Your task to perform on an android device: Search for the best custom wallets on Etsy. Image 0: 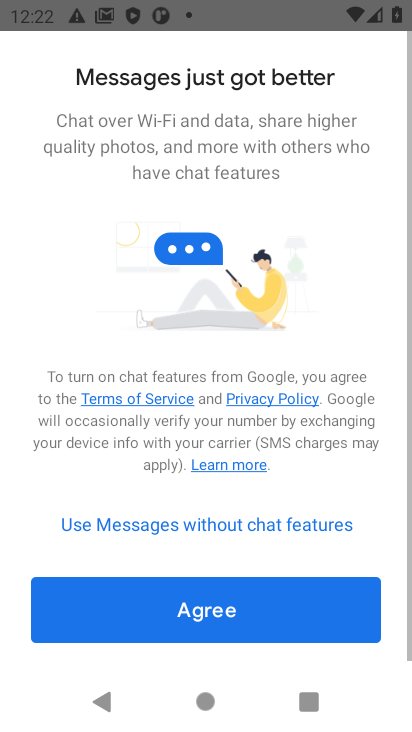
Step 0: press home button
Your task to perform on an android device: Search for the best custom wallets on Etsy. Image 1: 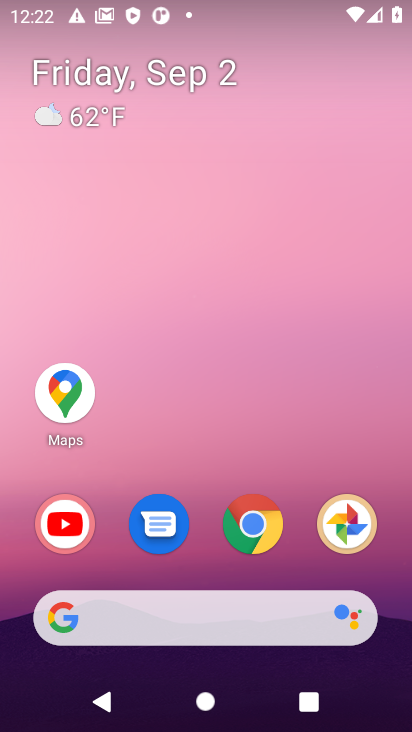
Step 1: click (278, 513)
Your task to perform on an android device: Search for the best custom wallets on Etsy. Image 2: 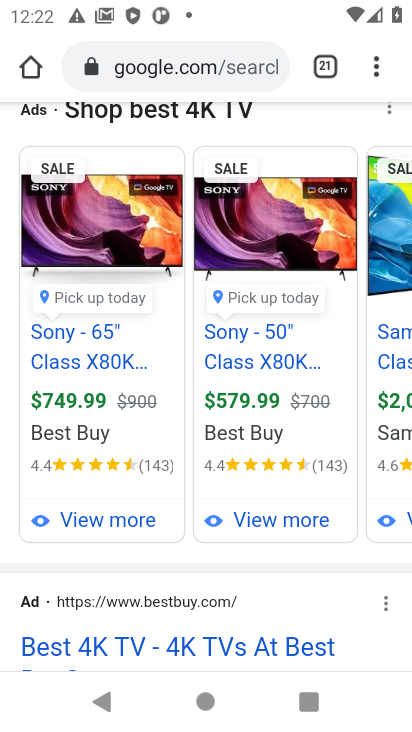
Step 2: click (322, 66)
Your task to perform on an android device: Search for the best custom wallets on Etsy. Image 3: 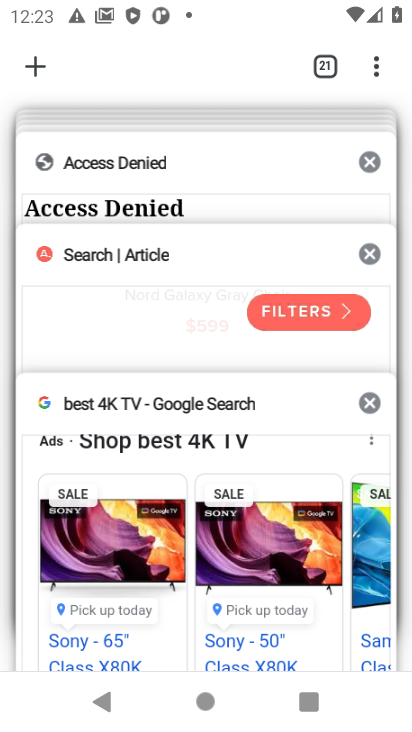
Step 3: drag from (203, 147) to (207, 503)
Your task to perform on an android device: Search for the best custom wallets on Etsy. Image 4: 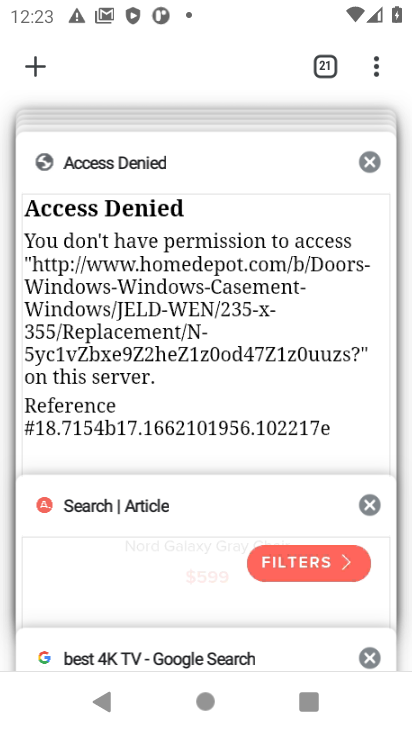
Step 4: drag from (176, 144) to (185, 524)
Your task to perform on an android device: Search for the best custom wallets on Etsy. Image 5: 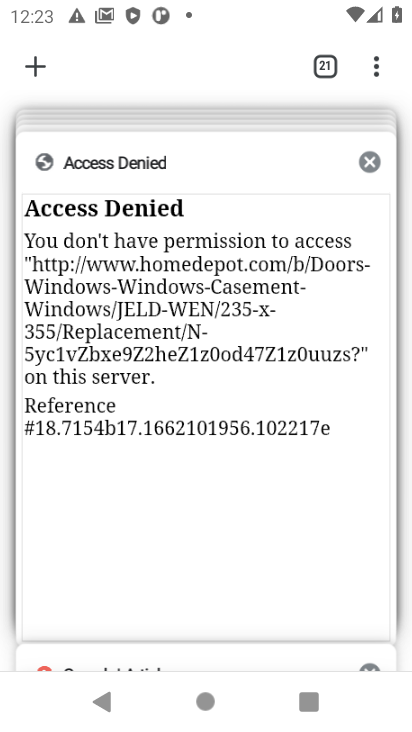
Step 5: drag from (145, 162) to (199, 584)
Your task to perform on an android device: Search for the best custom wallets on Etsy. Image 6: 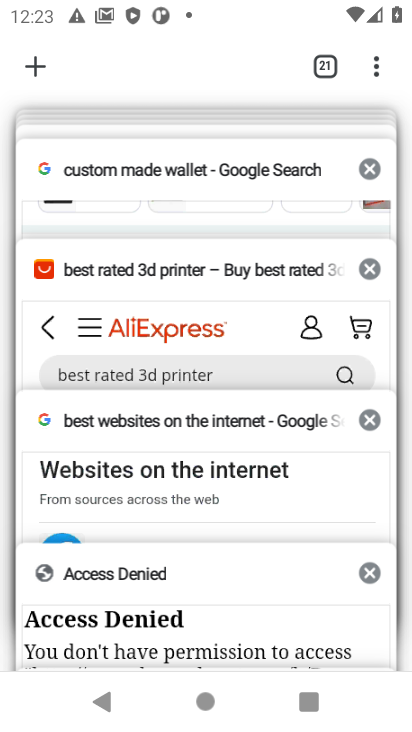
Step 6: drag from (165, 175) to (169, 580)
Your task to perform on an android device: Search for the best custom wallets on Etsy. Image 7: 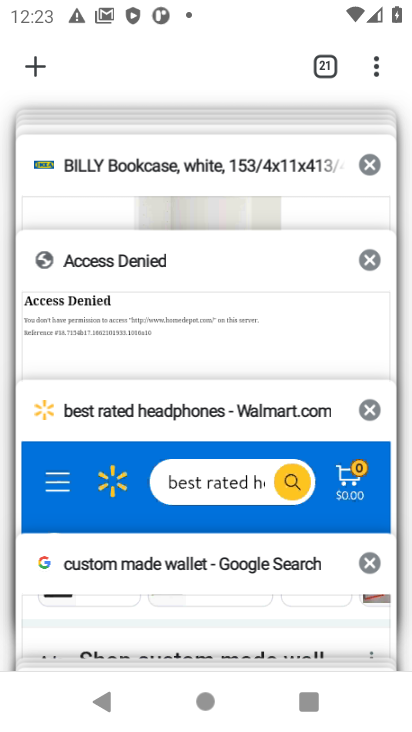
Step 7: drag from (124, 163) to (143, 597)
Your task to perform on an android device: Search for the best custom wallets on Etsy. Image 8: 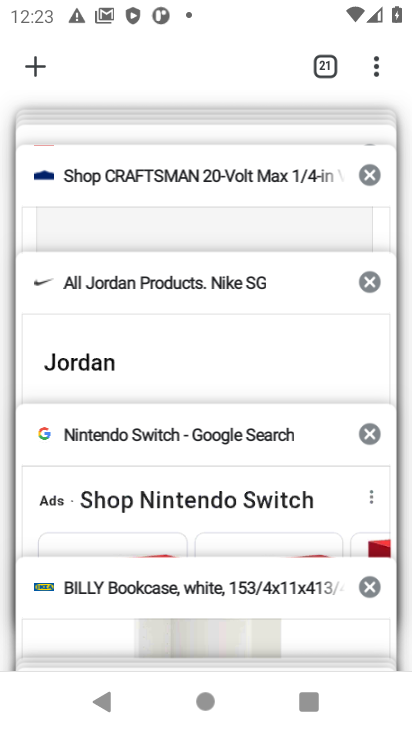
Step 8: drag from (105, 386) to (128, 665)
Your task to perform on an android device: Search for the best custom wallets on Etsy. Image 9: 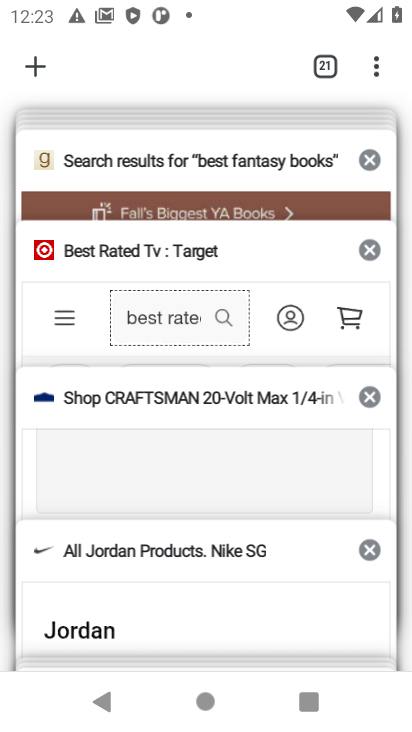
Step 9: drag from (184, 154) to (209, 601)
Your task to perform on an android device: Search for the best custom wallets on Etsy. Image 10: 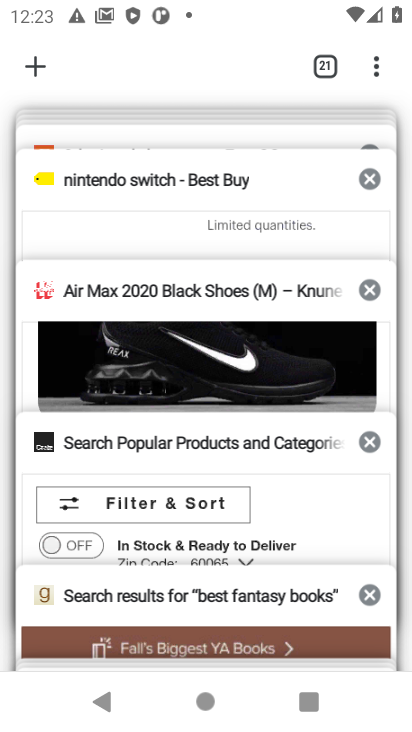
Step 10: drag from (225, 320) to (251, 559)
Your task to perform on an android device: Search for the best custom wallets on Etsy. Image 11: 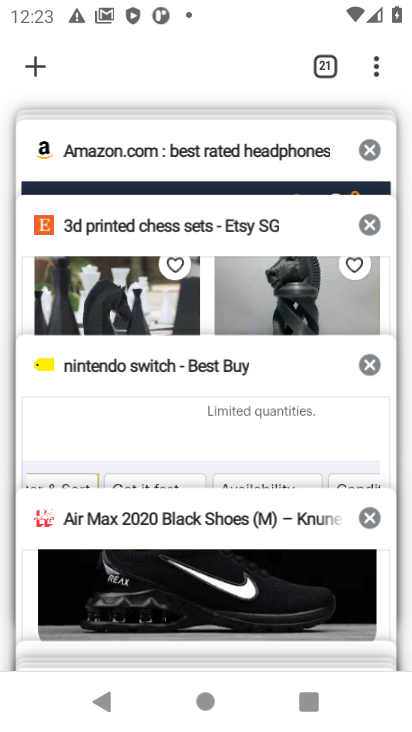
Step 11: click (211, 222)
Your task to perform on an android device: Search for the best custom wallets on Etsy. Image 12: 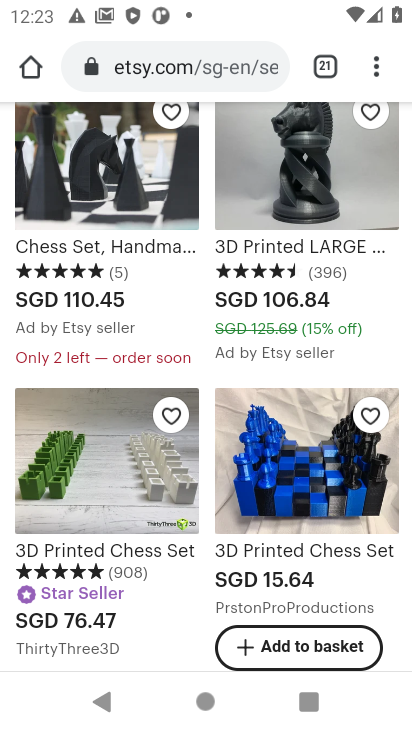
Step 12: drag from (245, 153) to (275, 535)
Your task to perform on an android device: Search for the best custom wallets on Etsy. Image 13: 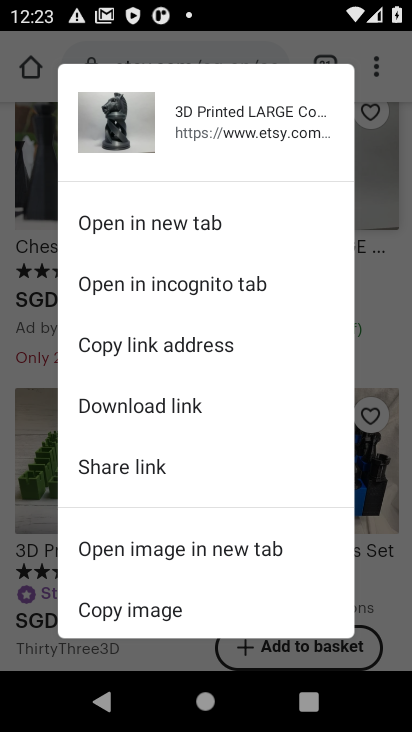
Step 13: click (391, 284)
Your task to perform on an android device: Search for the best custom wallets on Etsy. Image 14: 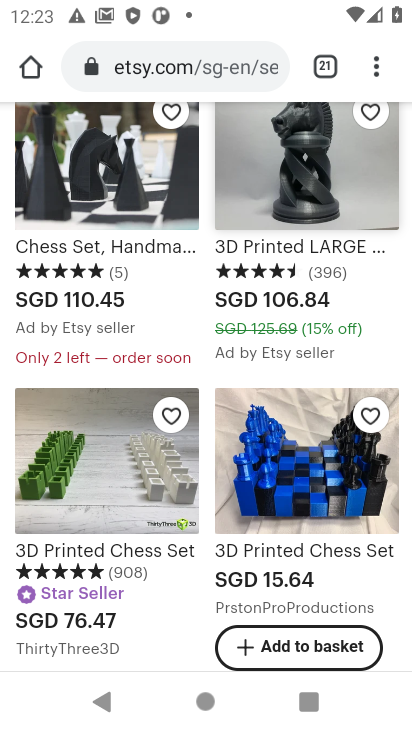
Step 14: drag from (391, 284) to (380, 583)
Your task to perform on an android device: Search for the best custom wallets on Etsy. Image 15: 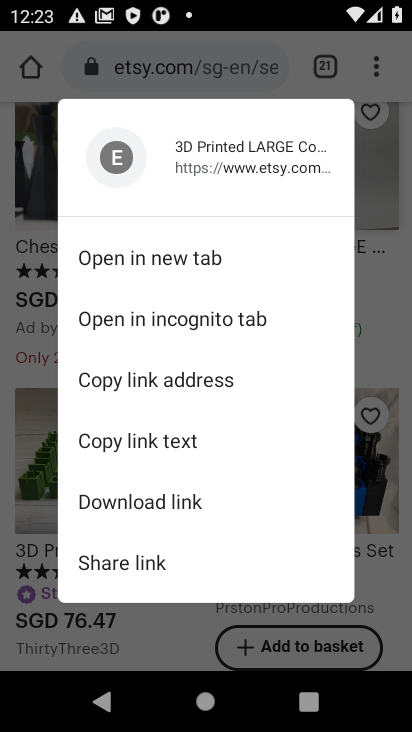
Step 15: click (384, 218)
Your task to perform on an android device: Search for the best custom wallets on Etsy. Image 16: 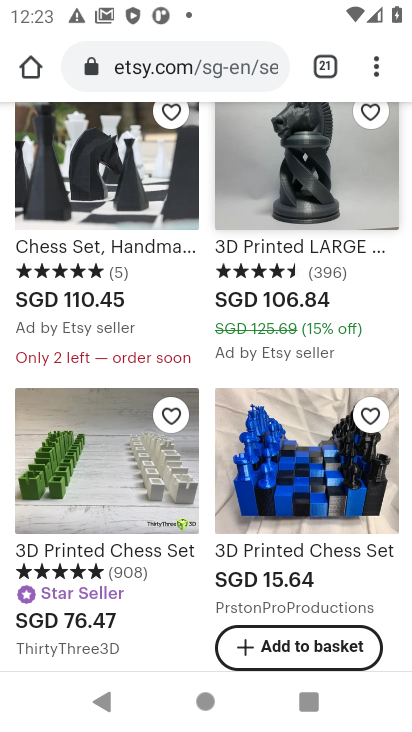
Step 16: drag from (203, 237) to (194, 523)
Your task to perform on an android device: Search for the best custom wallets on Etsy. Image 17: 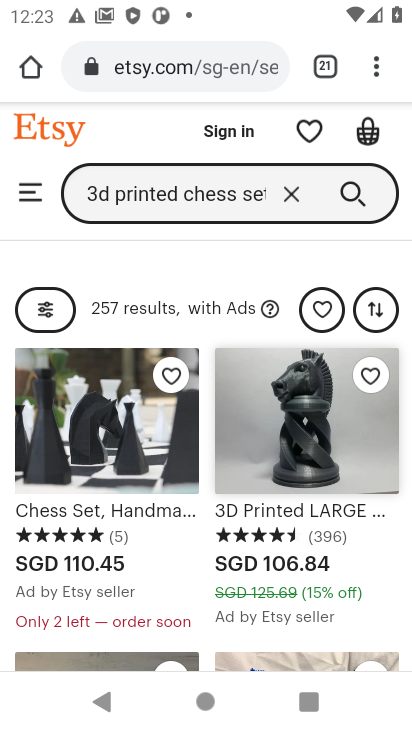
Step 17: click (296, 189)
Your task to perform on an android device: Search for the best custom wallets on Etsy. Image 18: 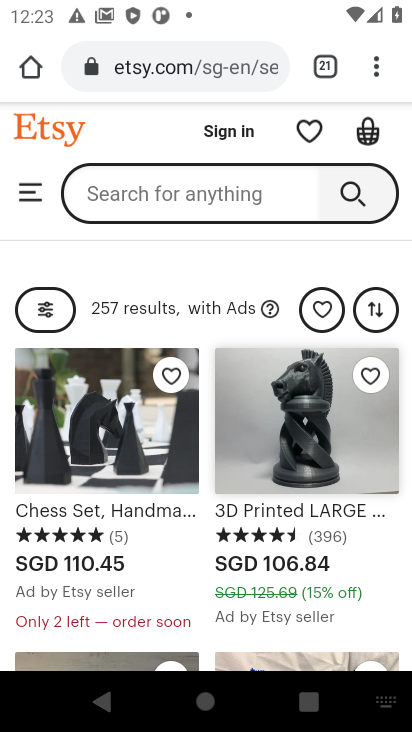
Step 18: type "best custom wallets"
Your task to perform on an android device: Search for the best custom wallets on Etsy. Image 19: 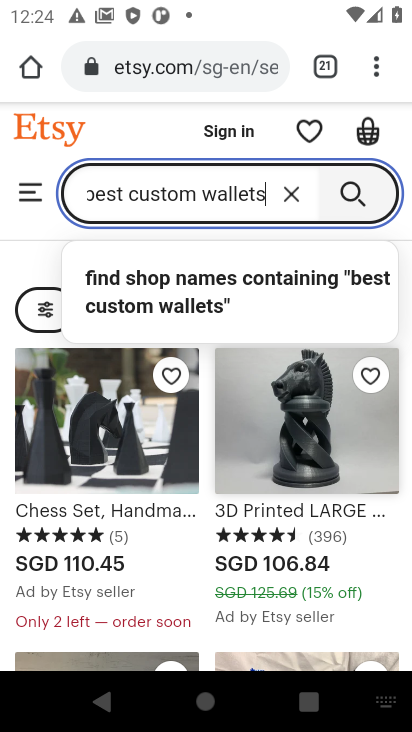
Step 19: click (352, 191)
Your task to perform on an android device: Search for the best custom wallets on Etsy. Image 20: 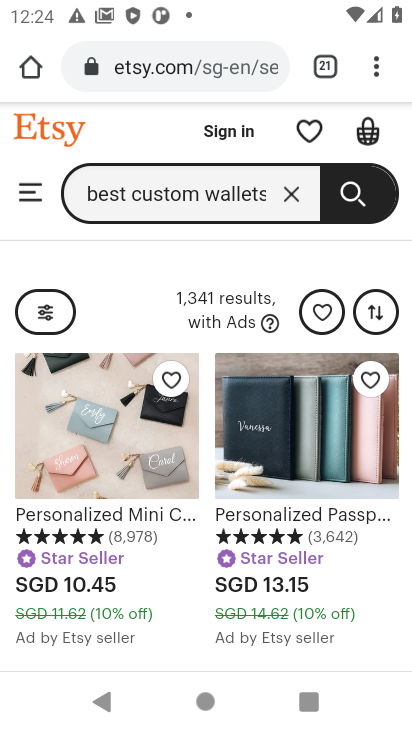
Step 20: task complete